Your task to perform on an android device: turn on translation in the chrome app Image 0: 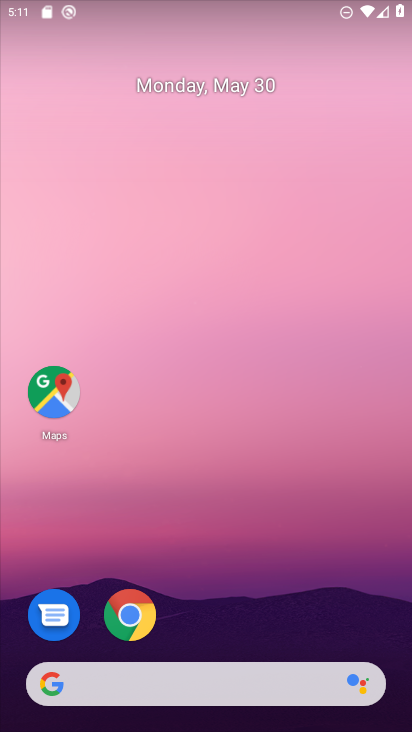
Step 0: click (140, 614)
Your task to perform on an android device: turn on translation in the chrome app Image 1: 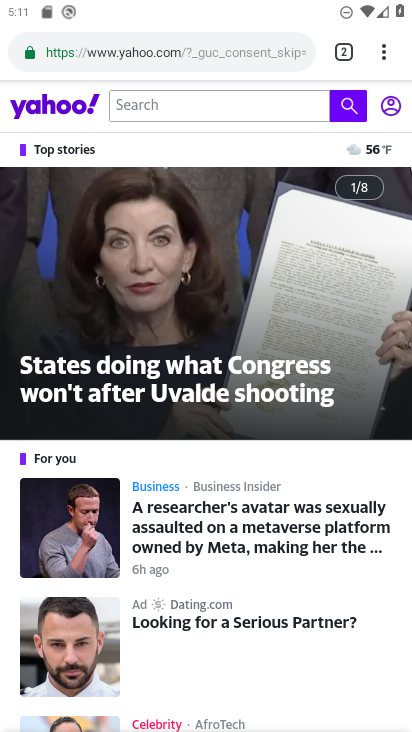
Step 1: click (396, 56)
Your task to perform on an android device: turn on translation in the chrome app Image 2: 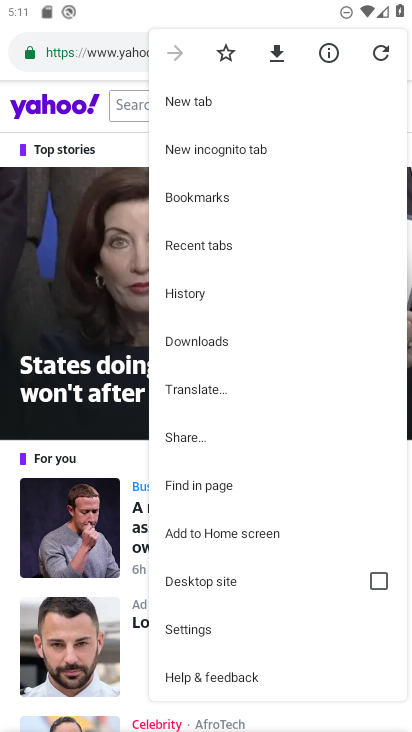
Step 2: click (174, 627)
Your task to perform on an android device: turn on translation in the chrome app Image 3: 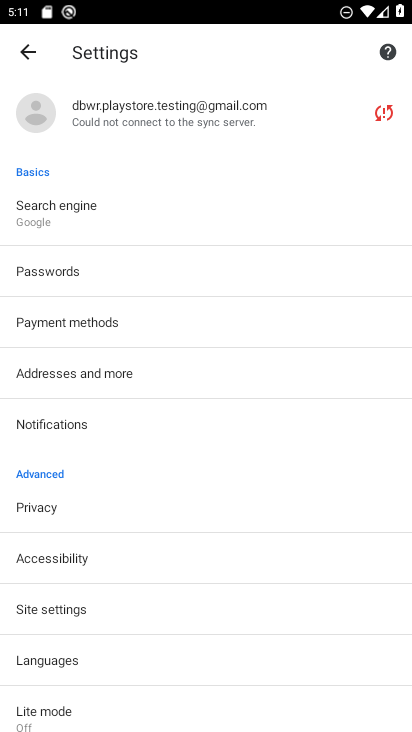
Step 3: click (104, 658)
Your task to perform on an android device: turn on translation in the chrome app Image 4: 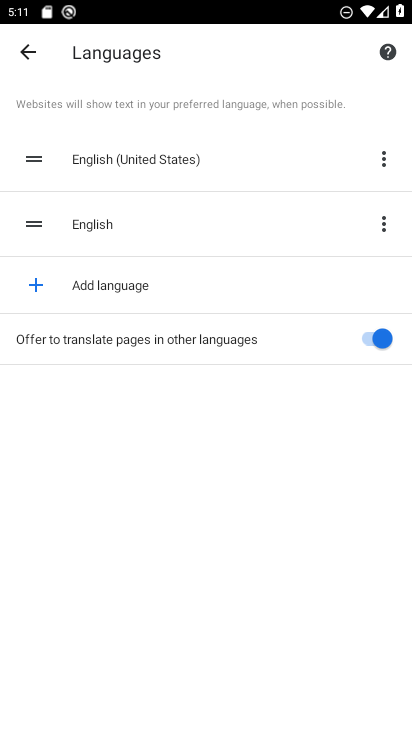
Step 4: task complete